Your task to perform on an android device: Search for electric lawnmowers on Home Depot Image 0: 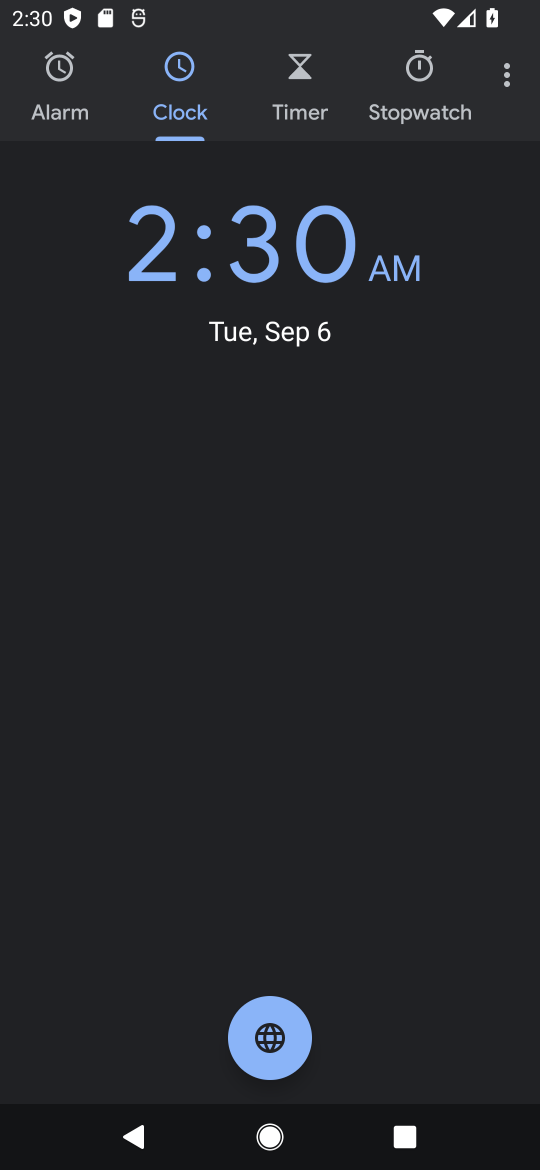
Step 0: press home button
Your task to perform on an android device: Search for electric lawnmowers on Home Depot Image 1: 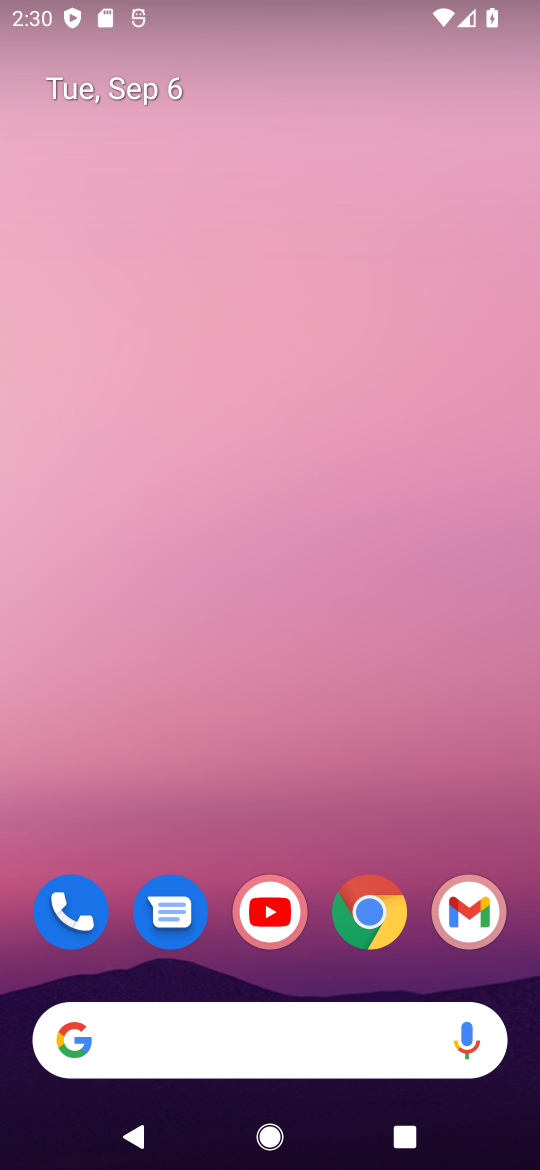
Step 1: drag from (335, 852) to (345, 34)
Your task to perform on an android device: Search for electric lawnmowers on Home Depot Image 2: 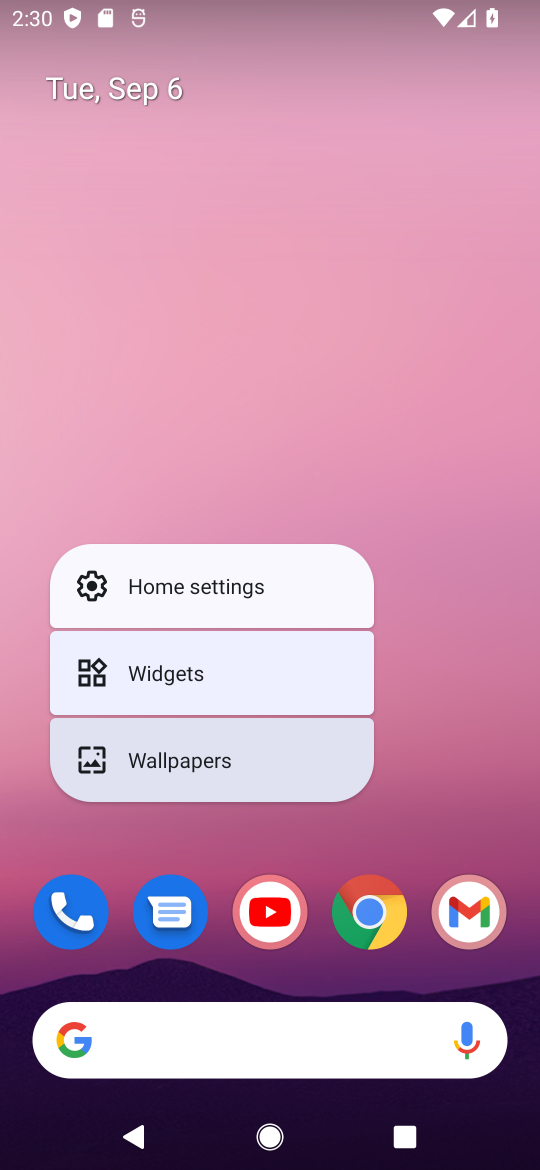
Step 2: click (413, 553)
Your task to perform on an android device: Search for electric lawnmowers on Home Depot Image 3: 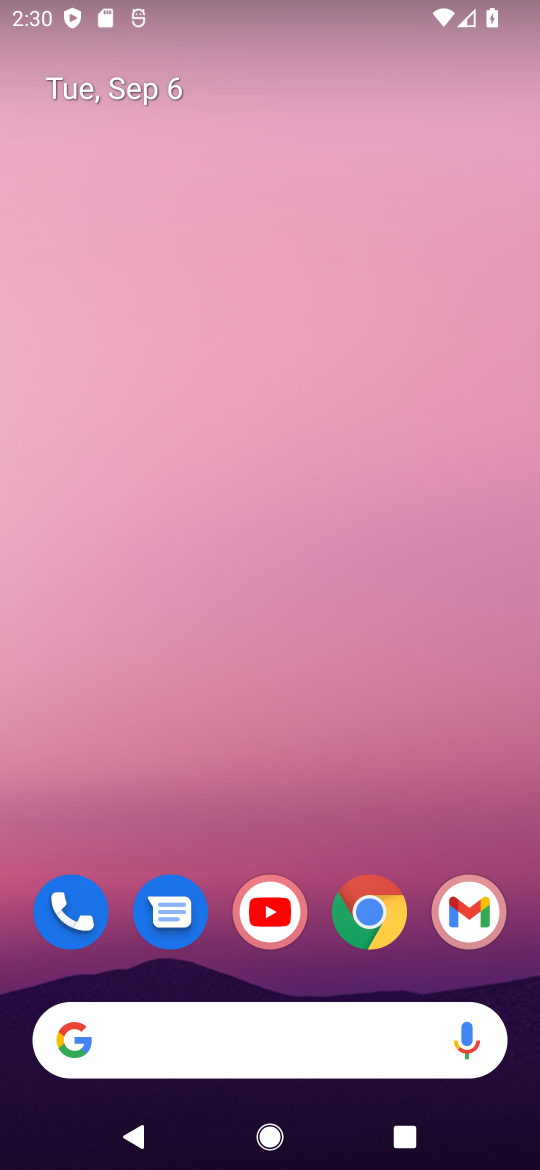
Step 3: drag from (309, 900) to (383, 98)
Your task to perform on an android device: Search for electric lawnmowers on Home Depot Image 4: 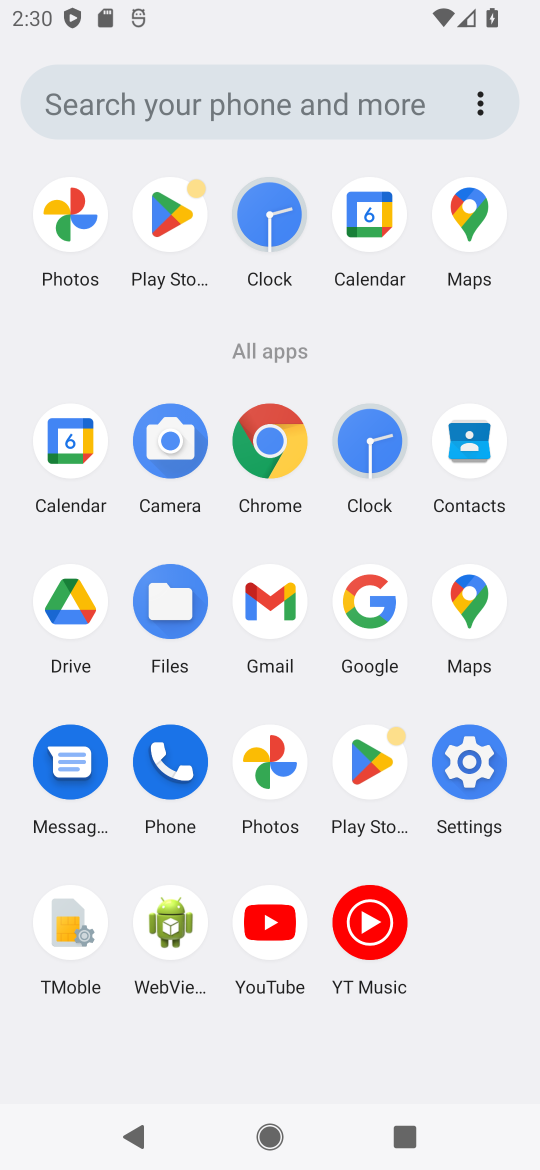
Step 4: click (275, 447)
Your task to perform on an android device: Search for electric lawnmowers on Home Depot Image 5: 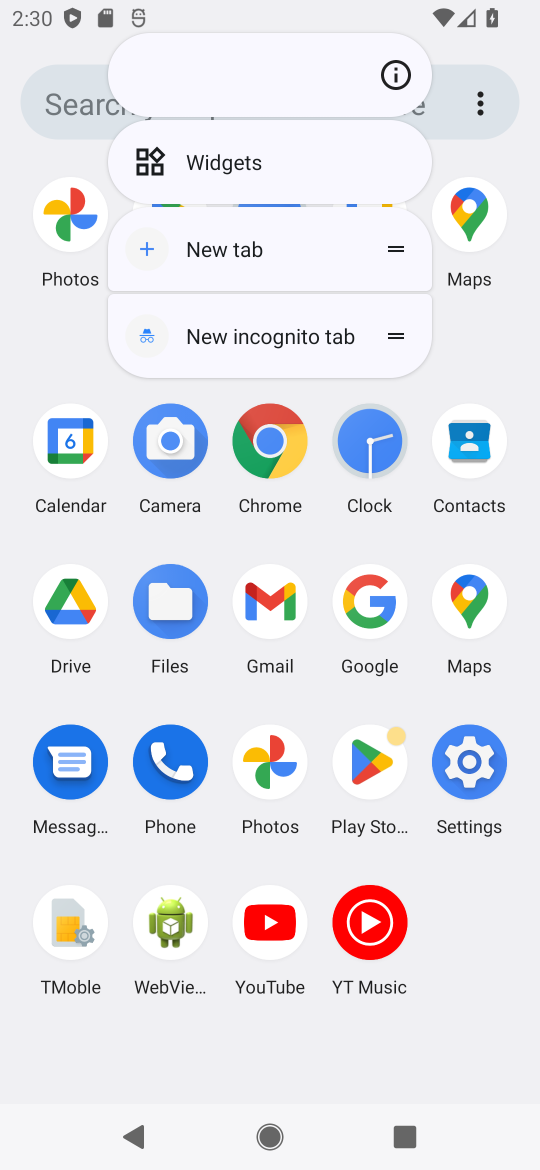
Step 5: click (268, 440)
Your task to perform on an android device: Search for electric lawnmowers on Home Depot Image 6: 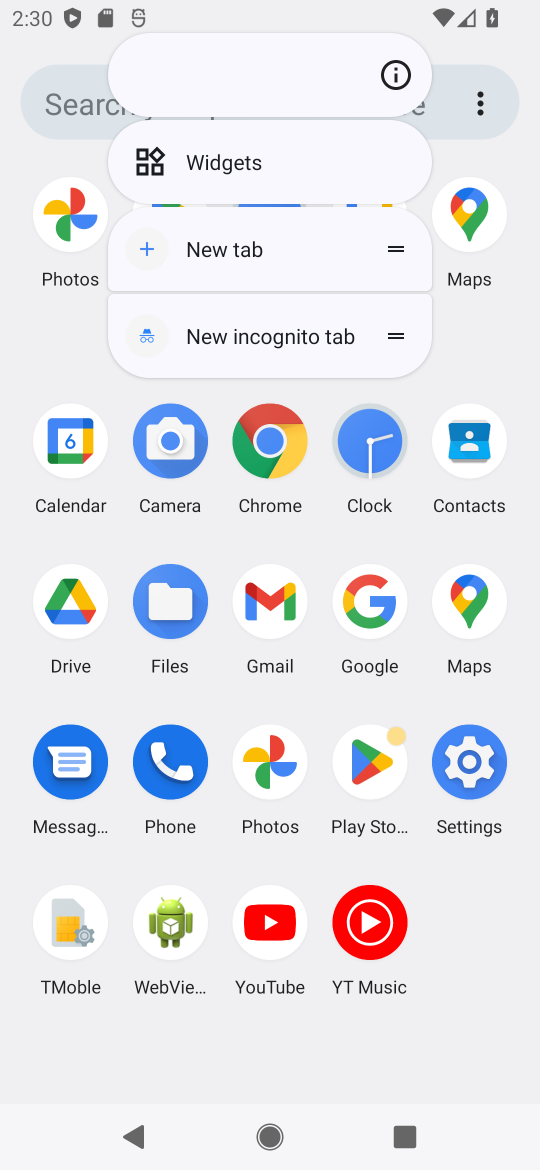
Step 6: click (268, 447)
Your task to perform on an android device: Search for electric lawnmowers on Home Depot Image 7: 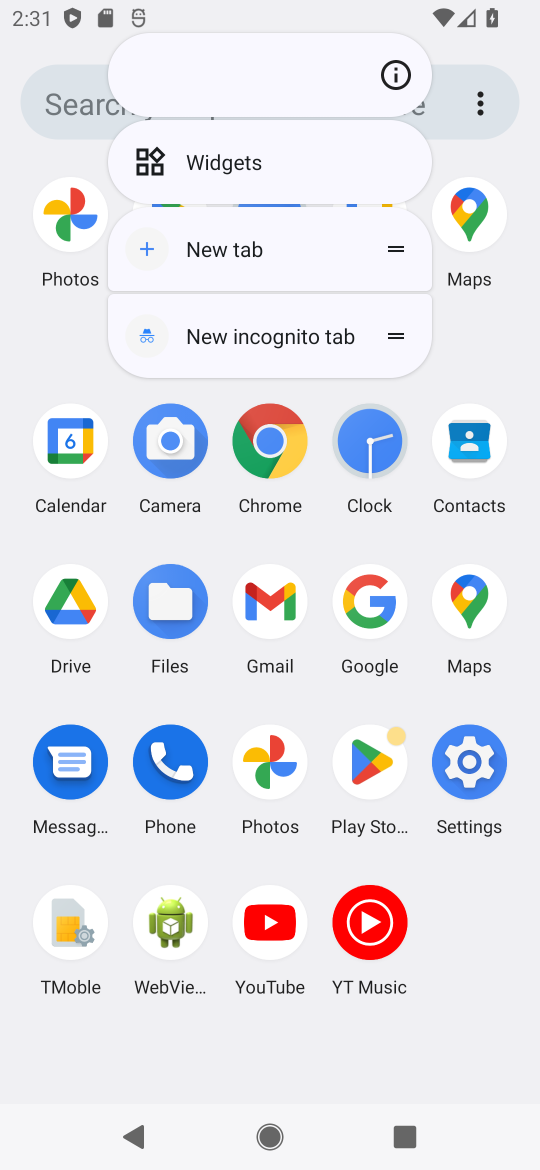
Step 7: click (272, 454)
Your task to perform on an android device: Search for electric lawnmowers on Home Depot Image 8: 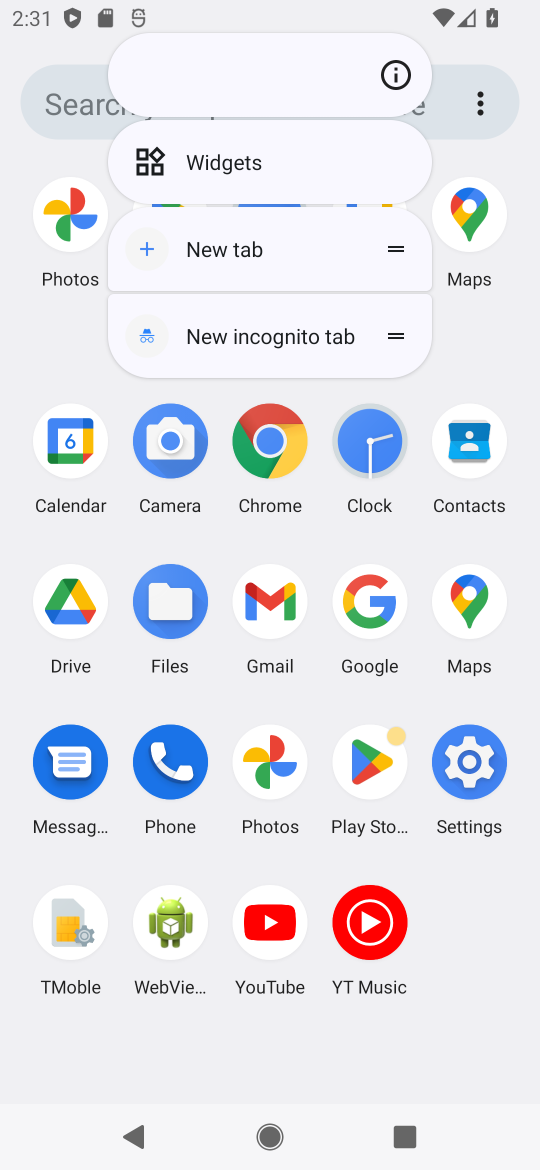
Step 8: click (266, 432)
Your task to perform on an android device: Search for electric lawnmowers on Home Depot Image 9: 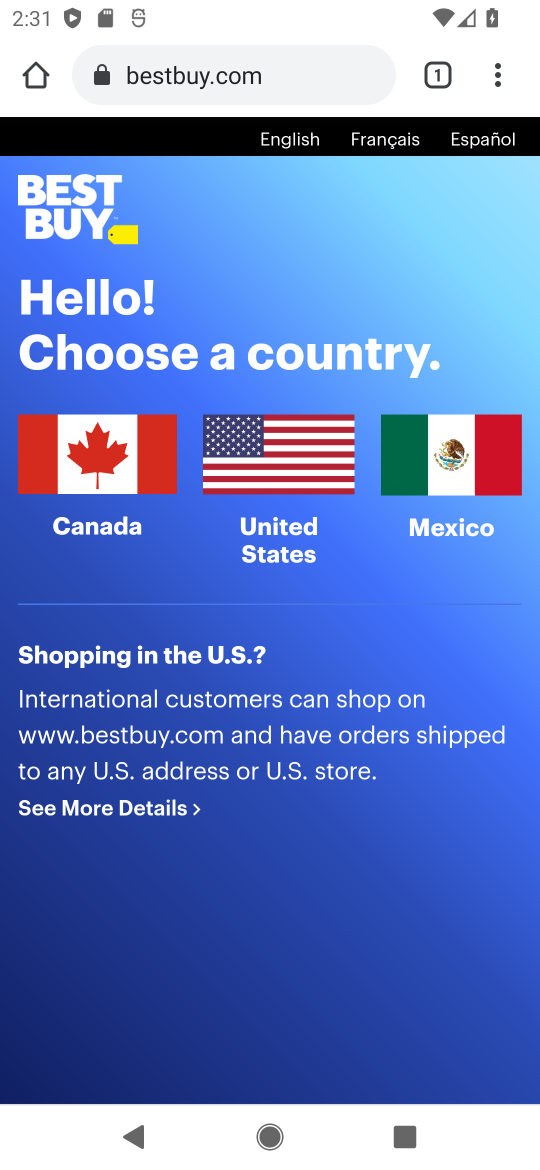
Step 9: click (309, 58)
Your task to perform on an android device: Search for electric lawnmowers on Home Depot Image 10: 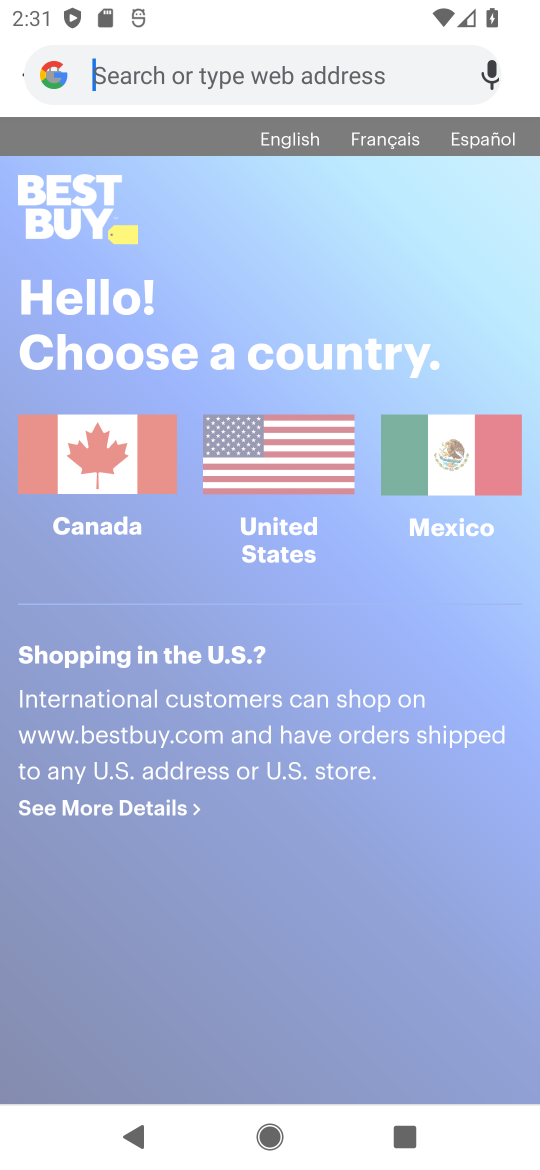
Step 10: click (309, 58)
Your task to perform on an android device: Search for electric lawnmowers on Home Depot Image 11: 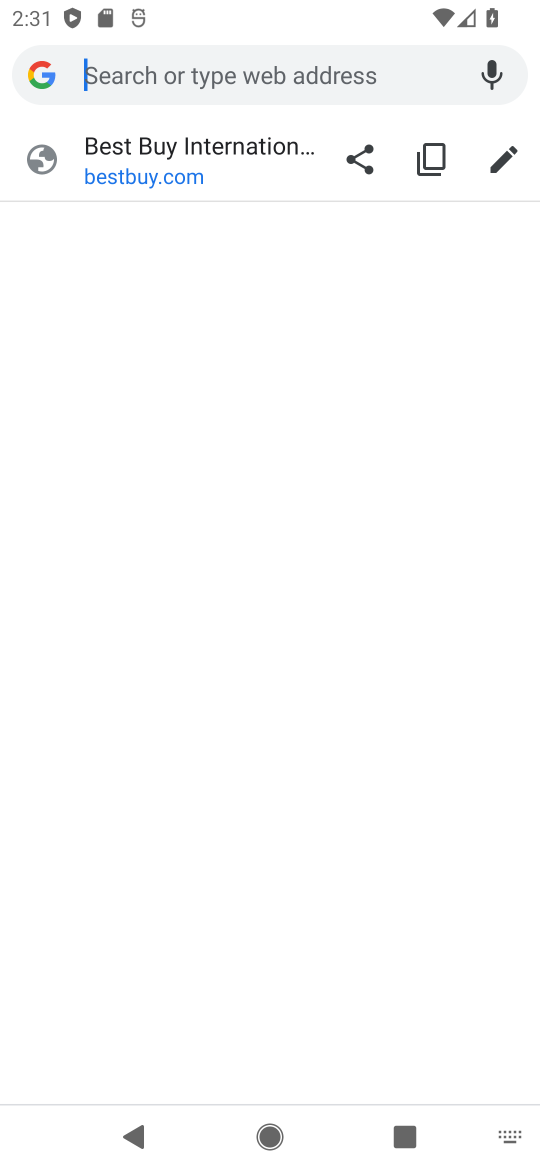
Step 11: click (309, 55)
Your task to perform on an android device: Search for electric lawnmowers on Home Depot Image 12: 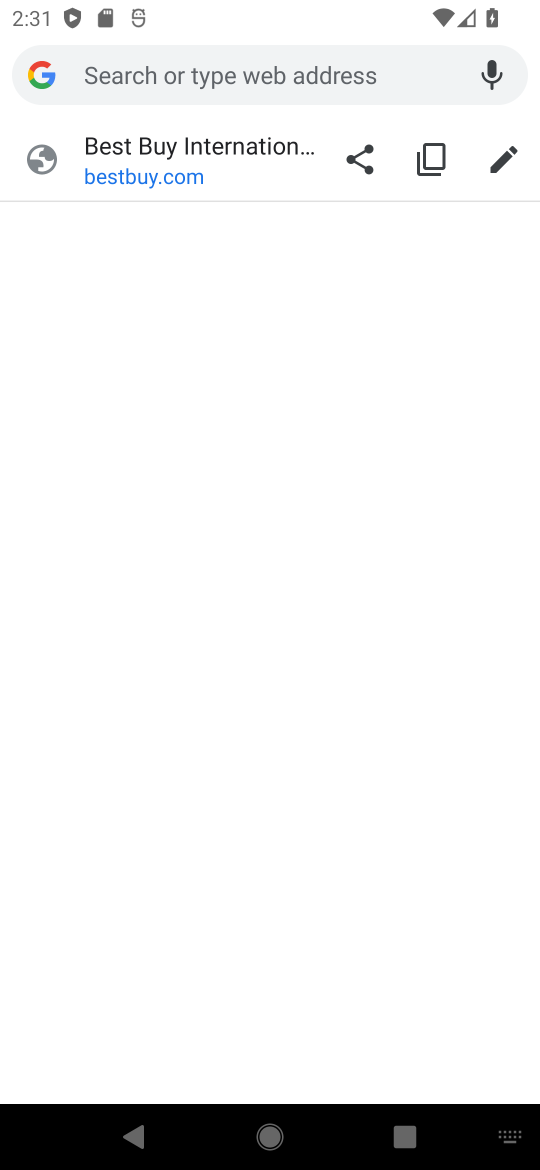
Step 12: type "Home Depot"
Your task to perform on an android device: Search for electric lawnmowers on Home Depot Image 13: 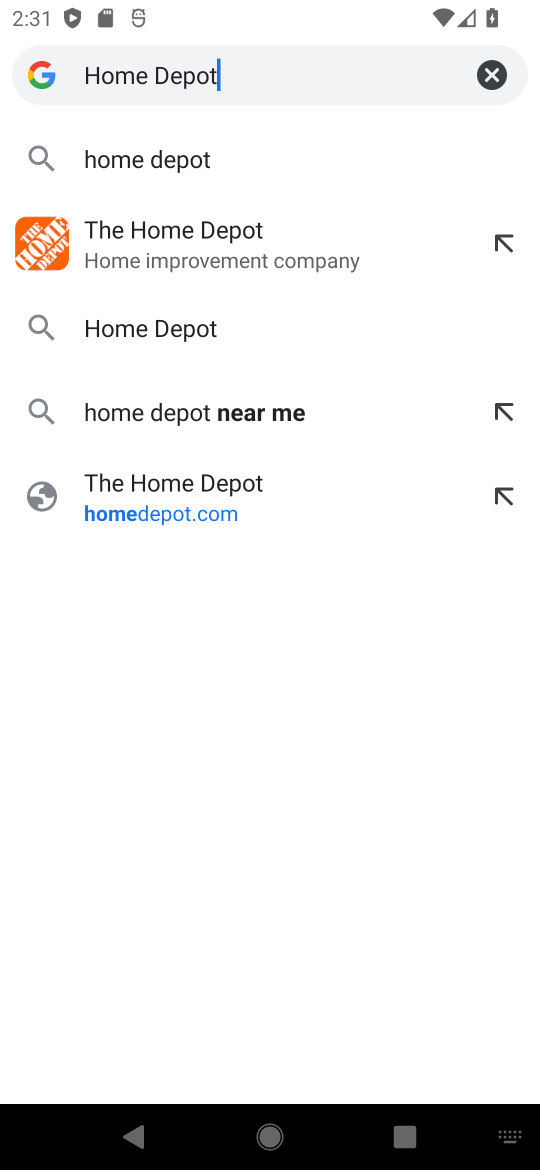
Step 13: click (169, 228)
Your task to perform on an android device: Search for electric lawnmowers on Home Depot Image 14: 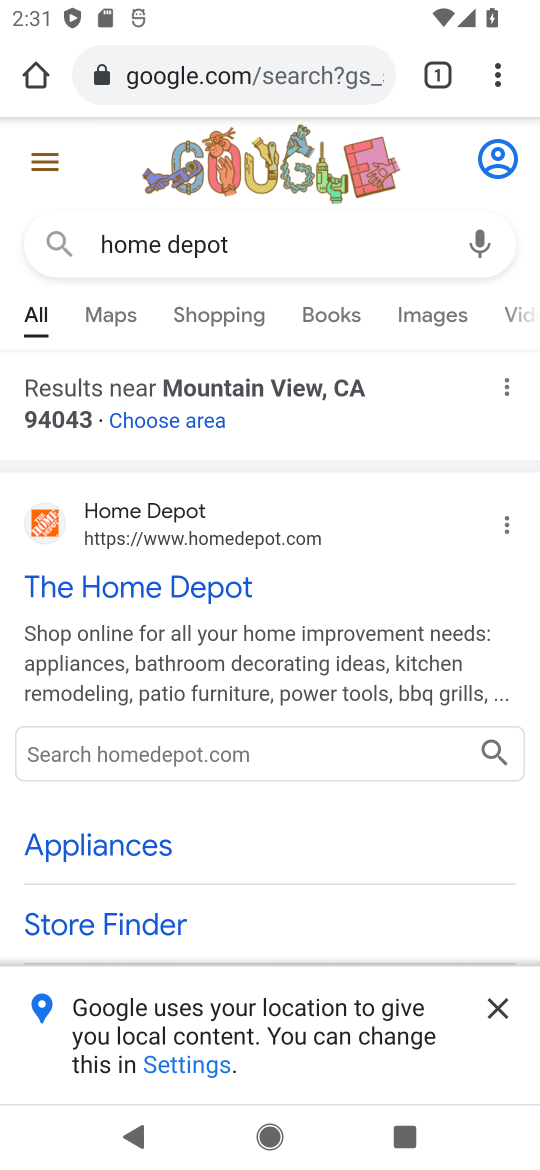
Step 14: click (166, 578)
Your task to perform on an android device: Search for electric lawnmowers on Home Depot Image 15: 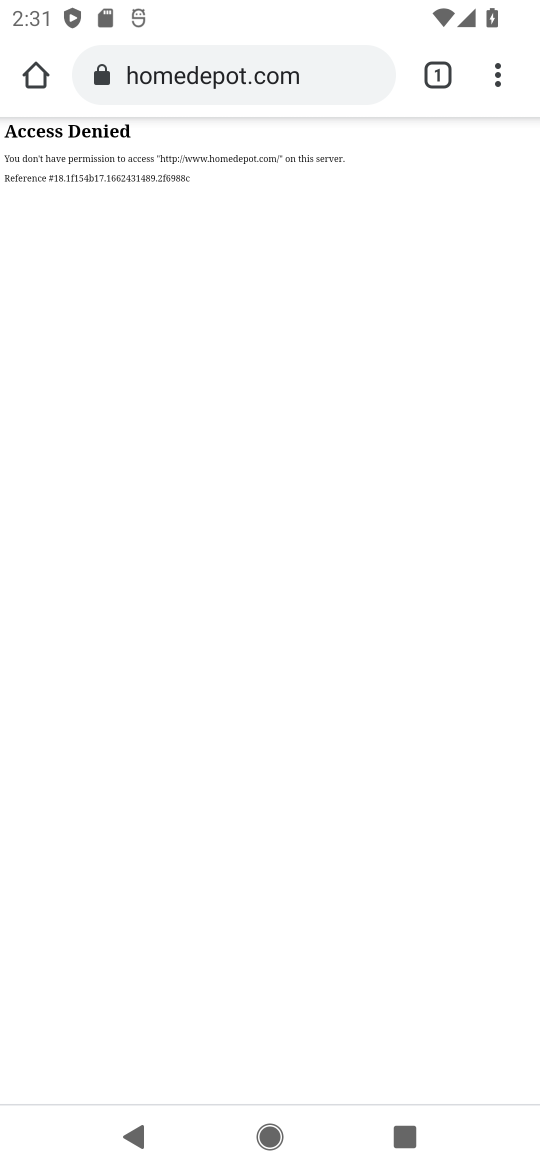
Step 15: task complete